Your task to perform on an android device: add a label to a message in the gmail app Image 0: 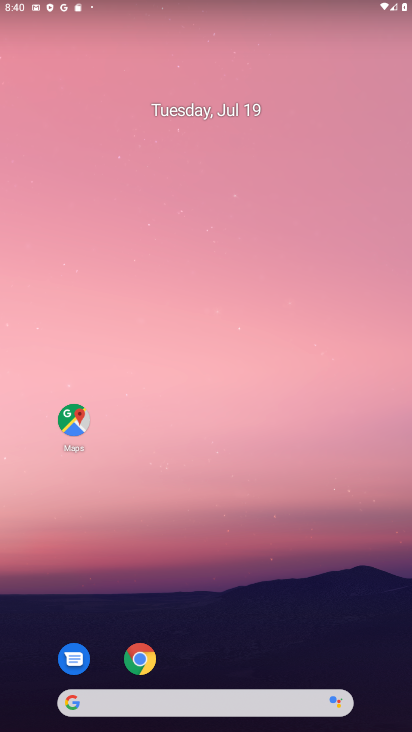
Step 0: drag from (246, 611) to (386, 6)
Your task to perform on an android device: add a label to a message in the gmail app Image 1: 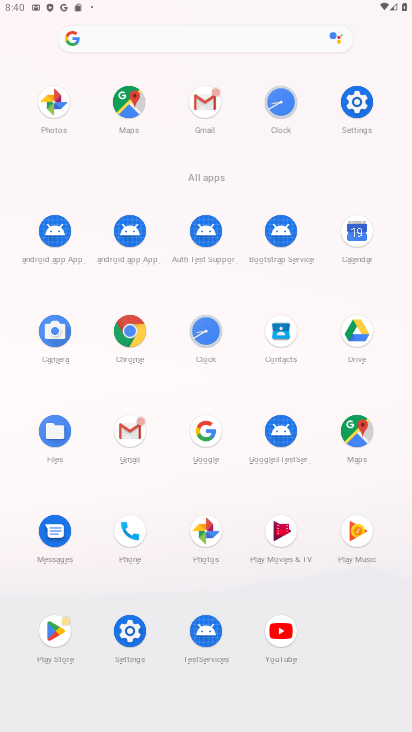
Step 1: click (122, 429)
Your task to perform on an android device: add a label to a message in the gmail app Image 2: 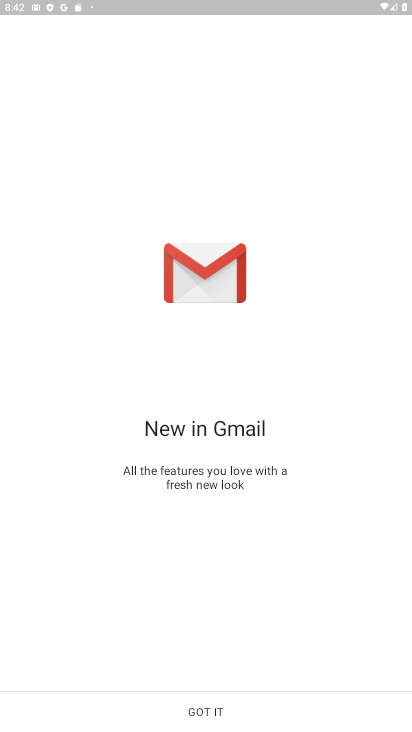
Step 2: click (174, 719)
Your task to perform on an android device: add a label to a message in the gmail app Image 3: 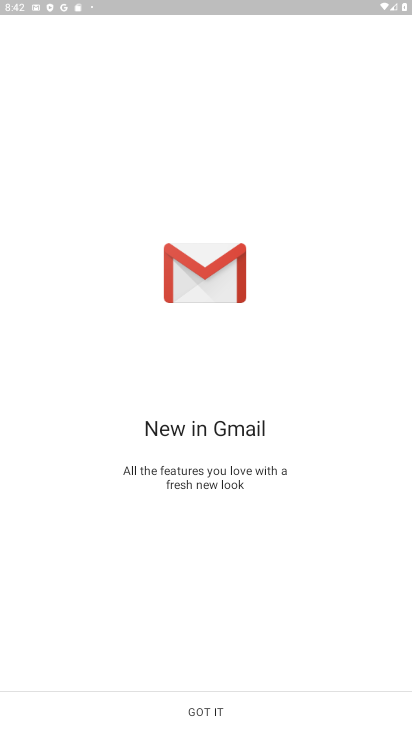
Step 3: click (174, 719)
Your task to perform on an android device: add a label to a message in the gmail app Image 4: 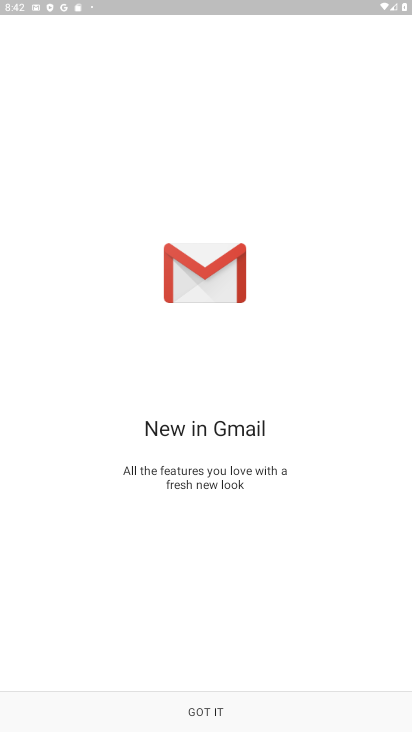
Step 4: click (174, 719)
Your task to perform on an android device: add a label to a message in the gmail app Image 5: 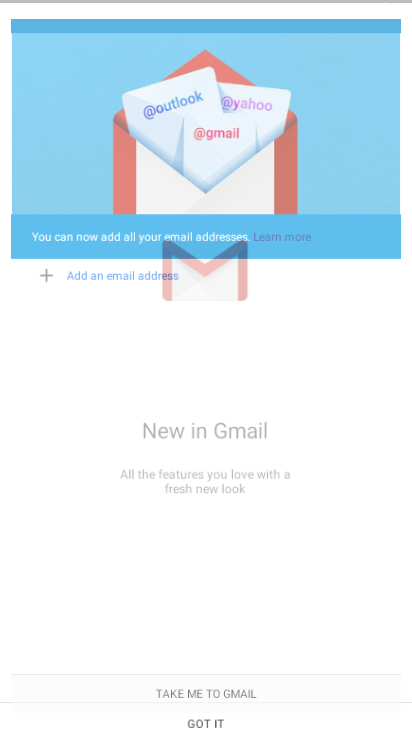
Step 5: click (174, 719)
Your task to perform on an android device: add a label to a message in the gmail app Image 6: 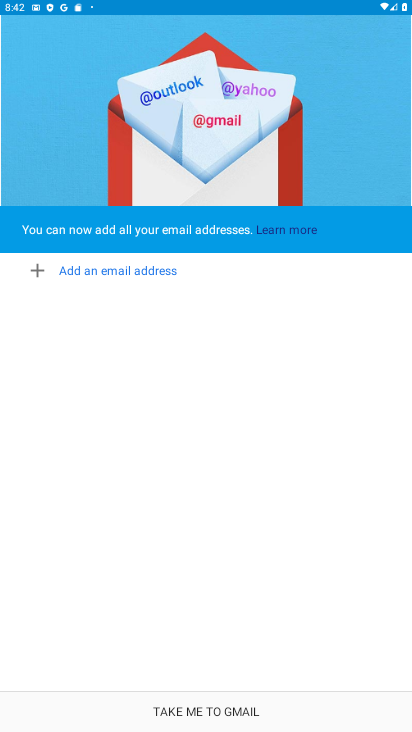
Step 6: click (174, 719)
Your task to perform on an android device: add a label to a message in the gmail app Image 7: 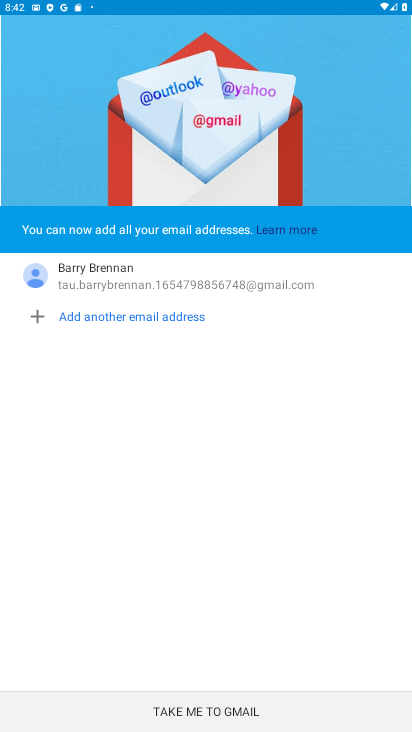
Step 7: click (174, 719)
Your task to perform on an android device: add a label to a message in the gmail app Image 8: 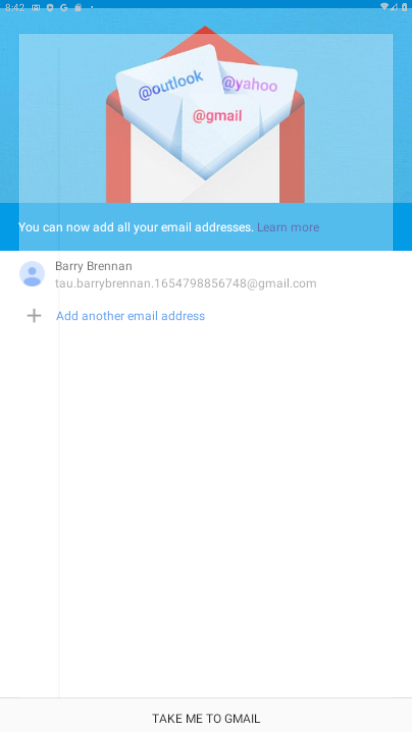
Step 8: click (174, 719)
Your task to perform on an android device: add a label to a message in the gmail app Image 9: 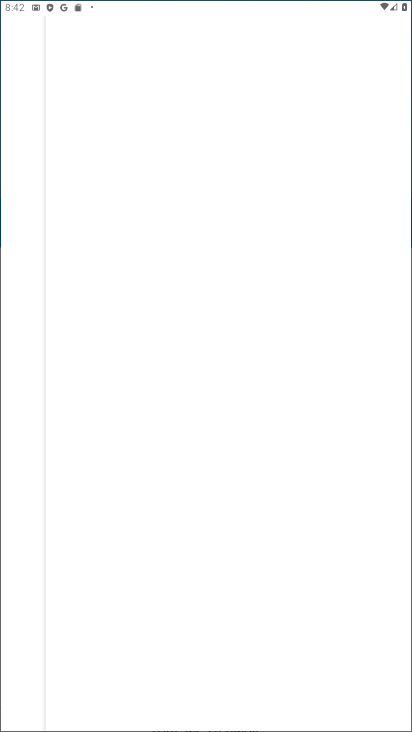
Step 9: click (174, 719)
Your task to perform on an android device: add a label to a message in the gmail app Image 10: 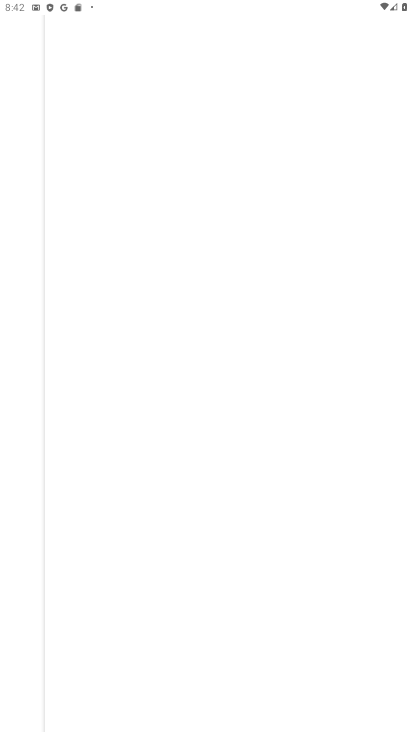
Step 10: click (174, 719)
Your task to perform on an android device: add a label to a message in the gmail app Image 11: 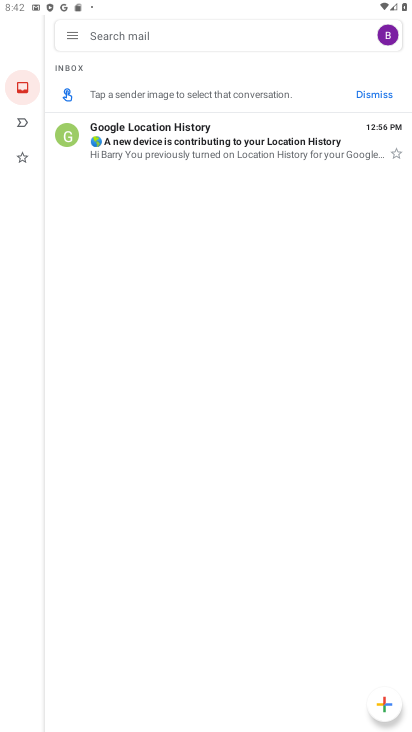
Step 11: task complete